Your task to perform on an android device: turn on translation in the chrome app Image 0: 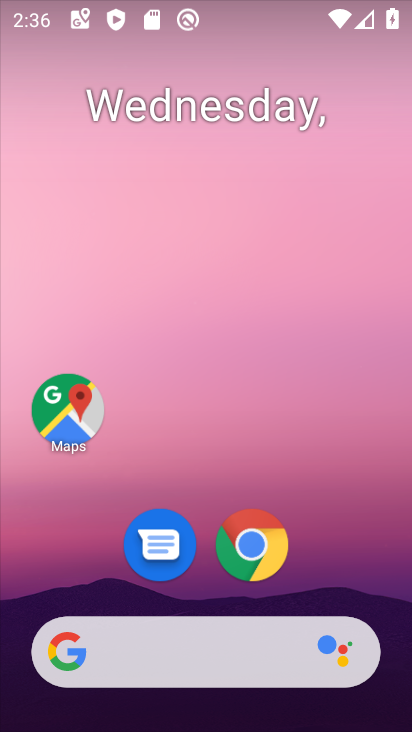
Step 0: press home button
Your task to perform on an android device: turn on translation in the chrome app Image 1: 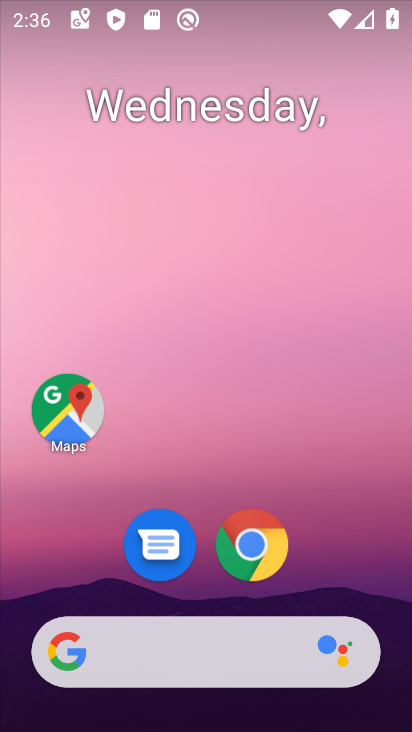
Step 1: click (261, 559)
Your task to perform on an android device: turn on translation in the chrome app Image 2: 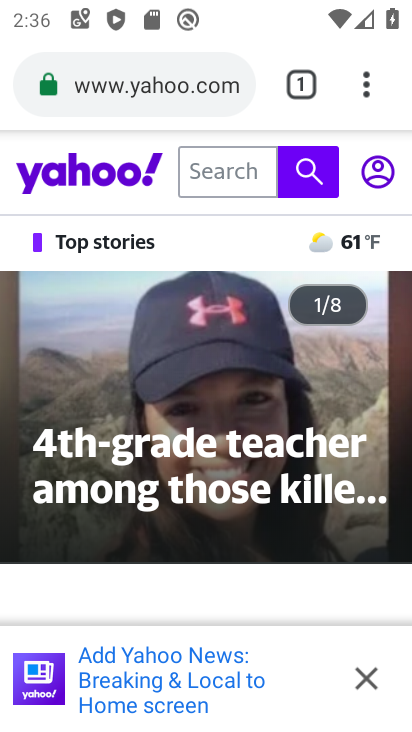
Step 2: drag from (366, 84) to (177, 610)
Your task to perform on an android device: turn on translation in the chrome app Image 3: 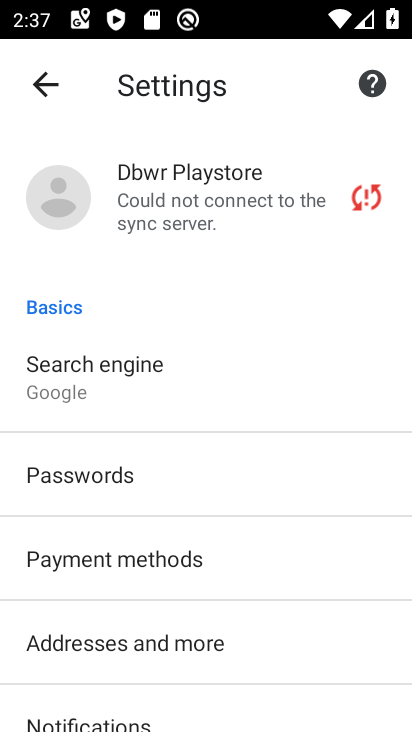
Step 3: drag from (202, 603) to (339, 230)
Your task to perform on an android device: turn on translation in the chrome app Image 4: 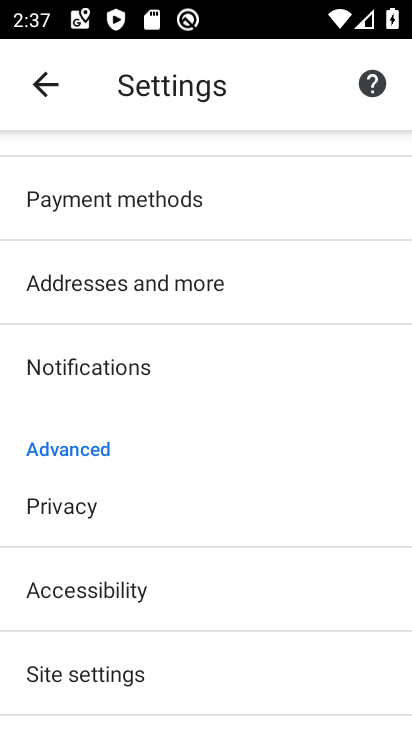
Step 4: drag from (165, 669) to (264, 386)
Your task to perform on an android device: turn on translation in the chrome app Image 5: 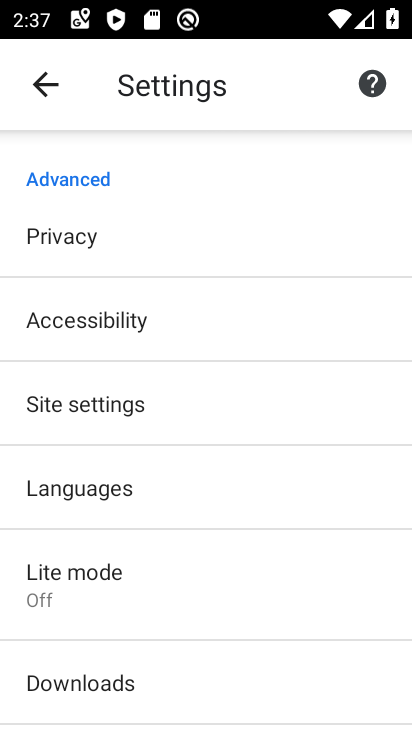
Step 5: click (134, 490)
Your task to perform on an android device: turn on translation in the chrome app Image 6: 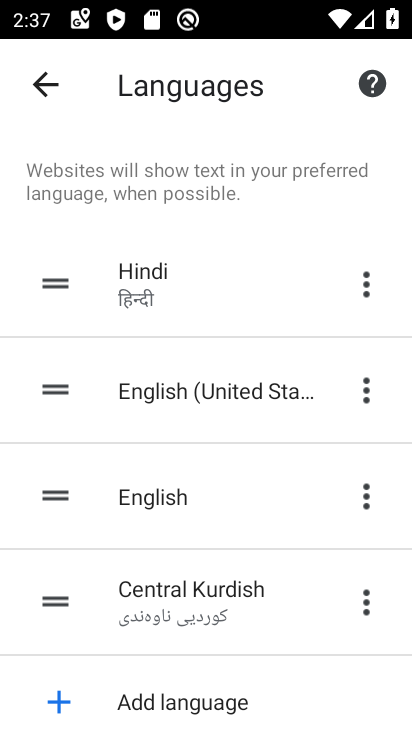
Step 6: drag from (314, 383) to (395, 126)
Your task to perform on an android device: turn on translation in the chrome app Image 7: 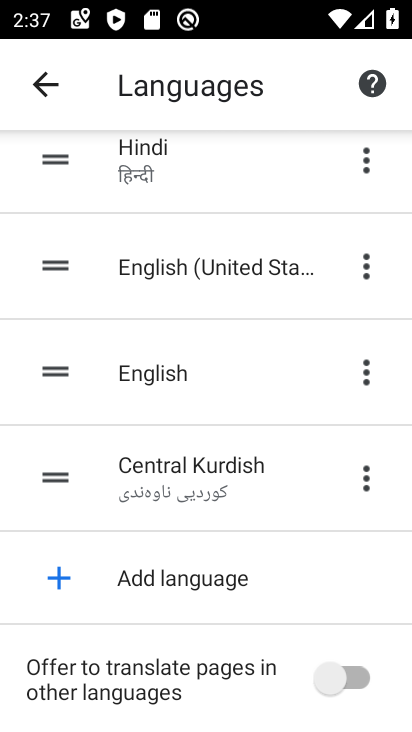
Step 7: click (352, 682)
Your task to perform on an android device: turn on translation in the chrome app Image 8: 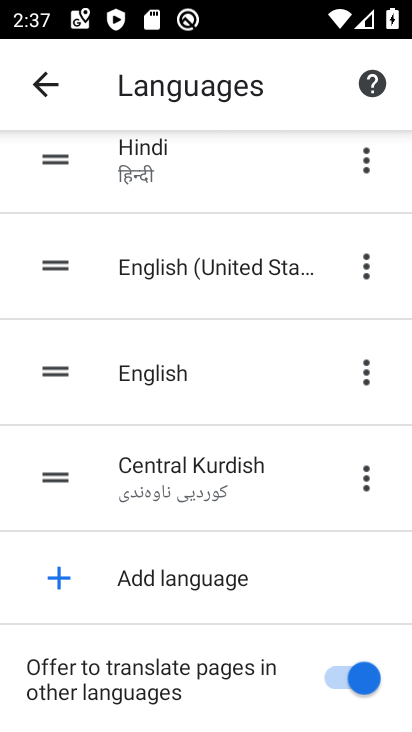
Step 8: task complete